Your task to perform on an android device: turn on showing notifications on the lock screen Image 0: 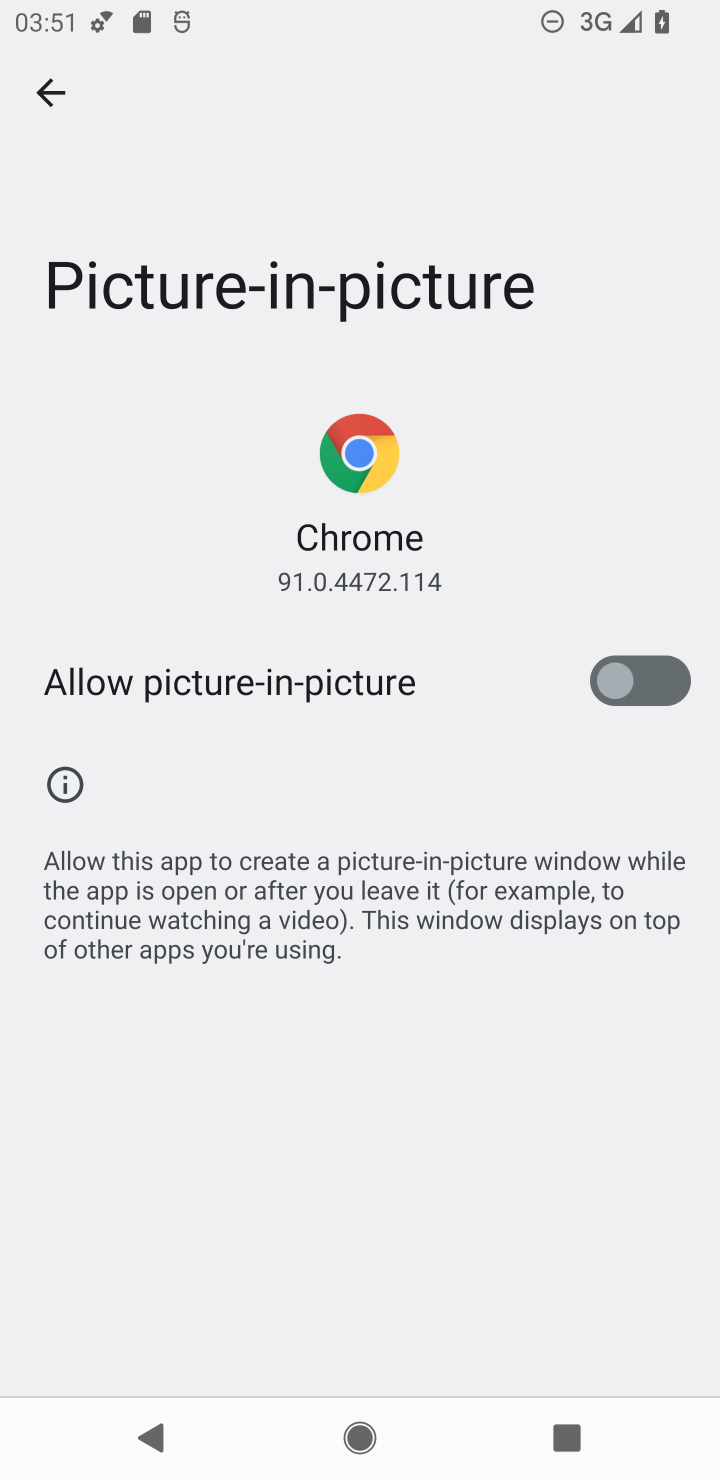
Step 0: press home button
Your task to perform on an android device: turn on showing notifications on the lock screen Image 1: 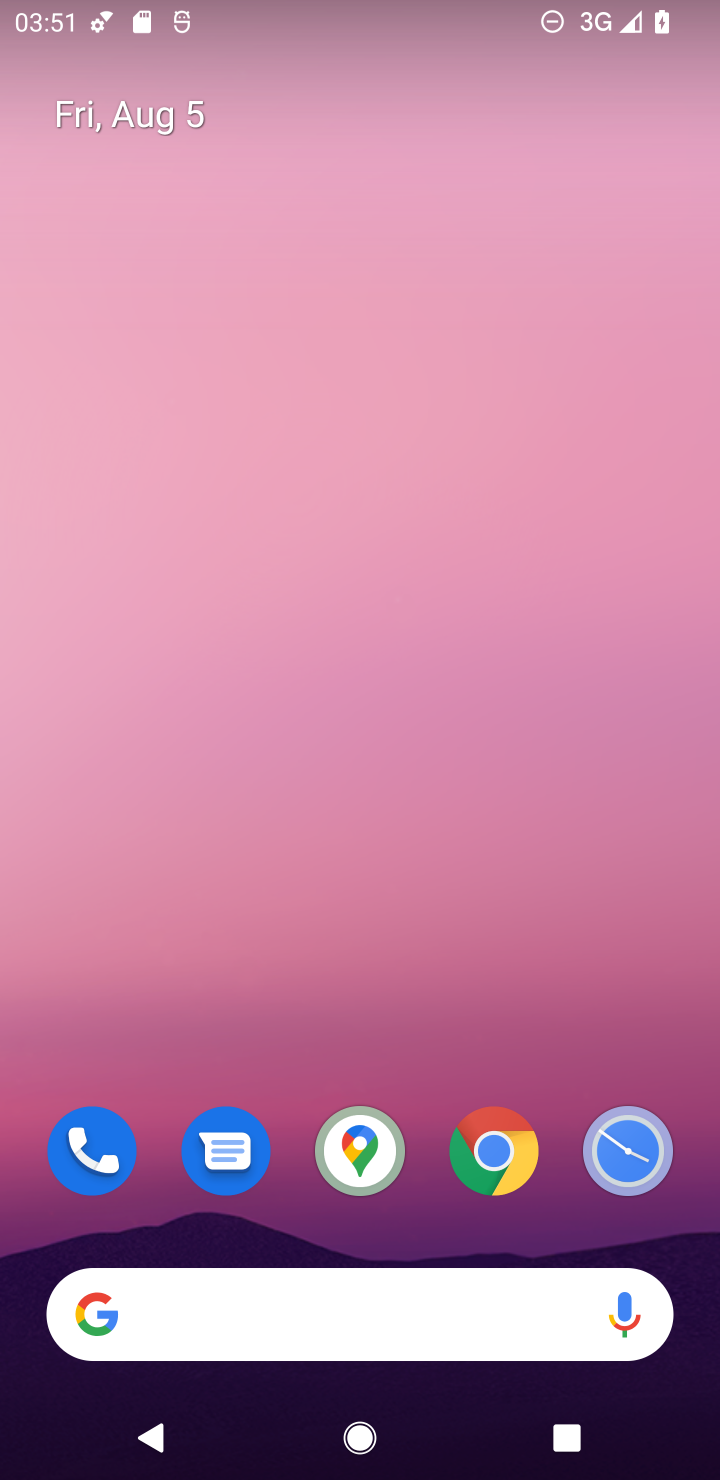
Step 1: drag from (295, 1001) to (295, 262)
Your task to perform on an android device: turn on showing notifications on the lock screen Image 2: 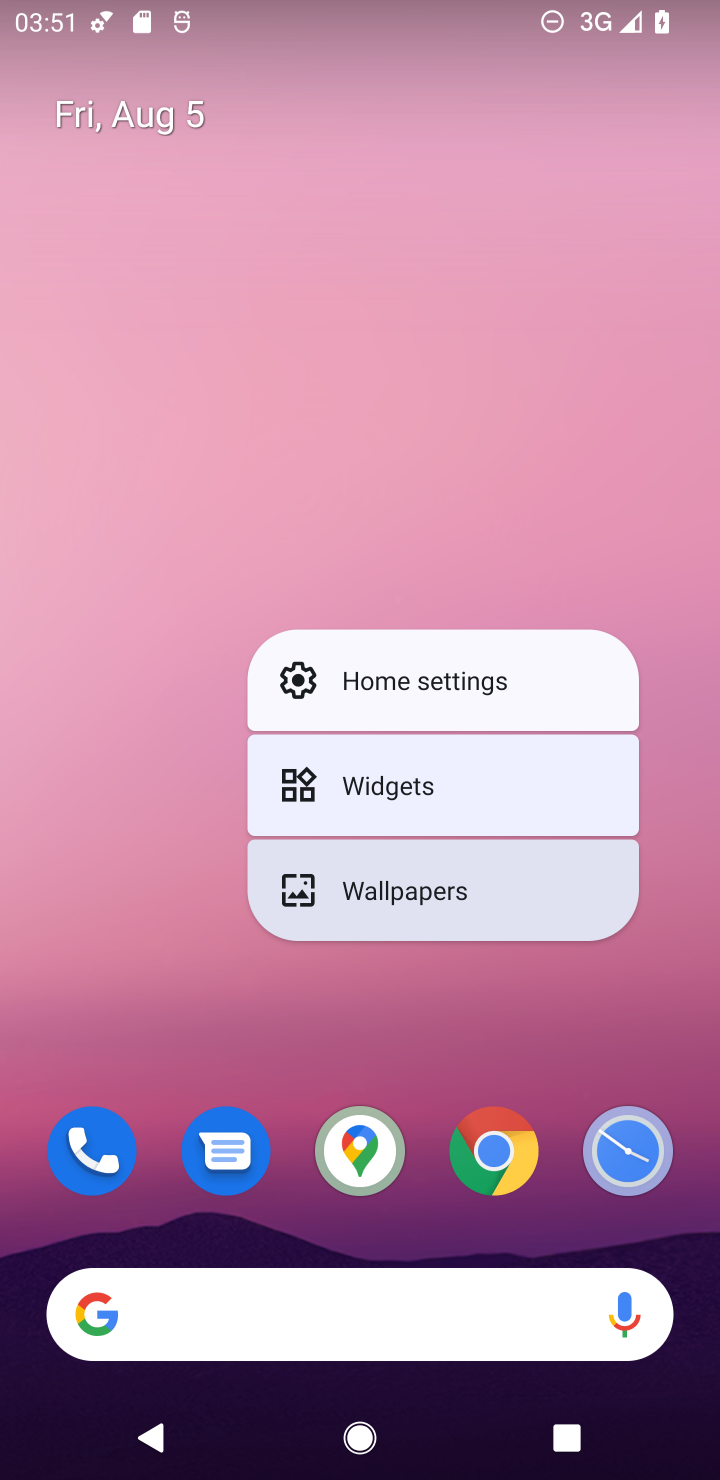
Step 2: click (295, 262)
Your task to perform on an android device: turn on showing notifications on the lock screen Image 3: 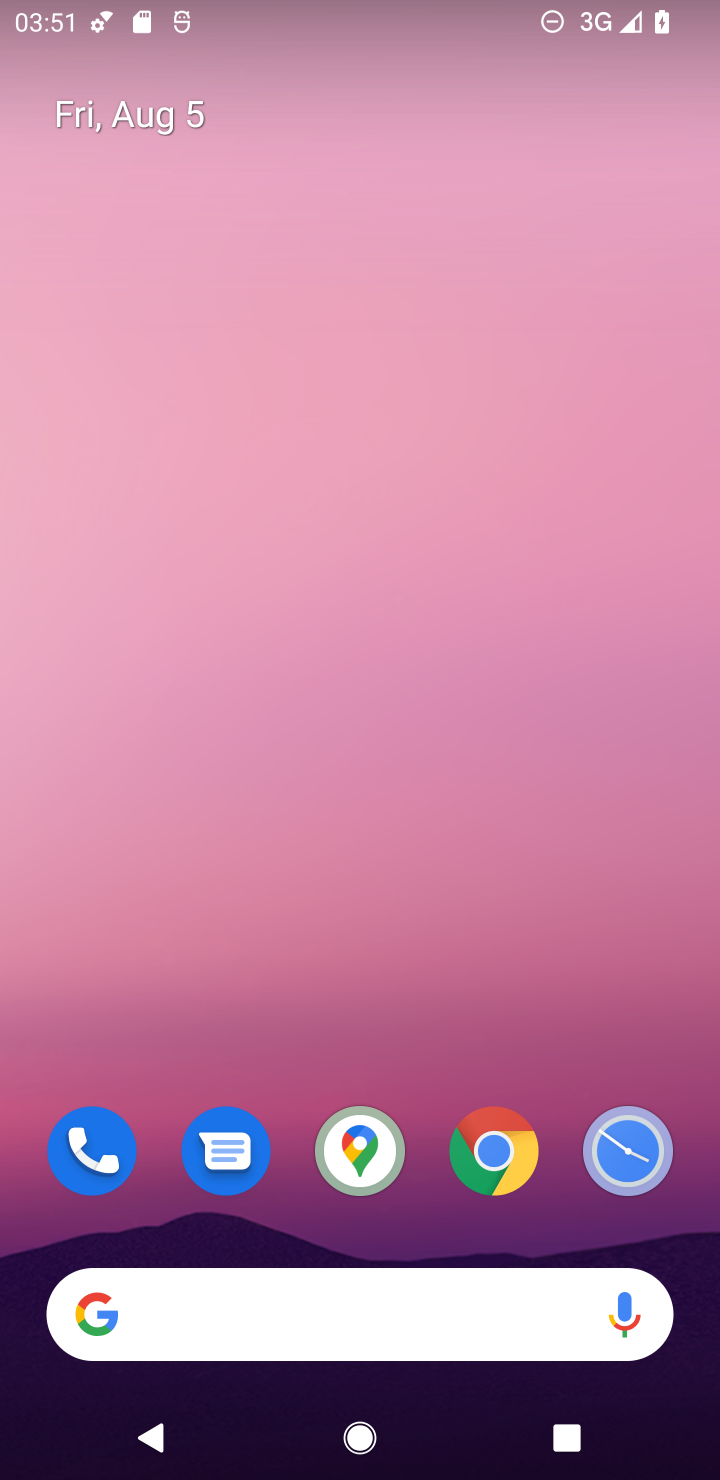
Step 3: drag from (379, 1027) to (395, 30)
Your task to perform on an android device: turn on showing notifications on the lock screen Image 4: 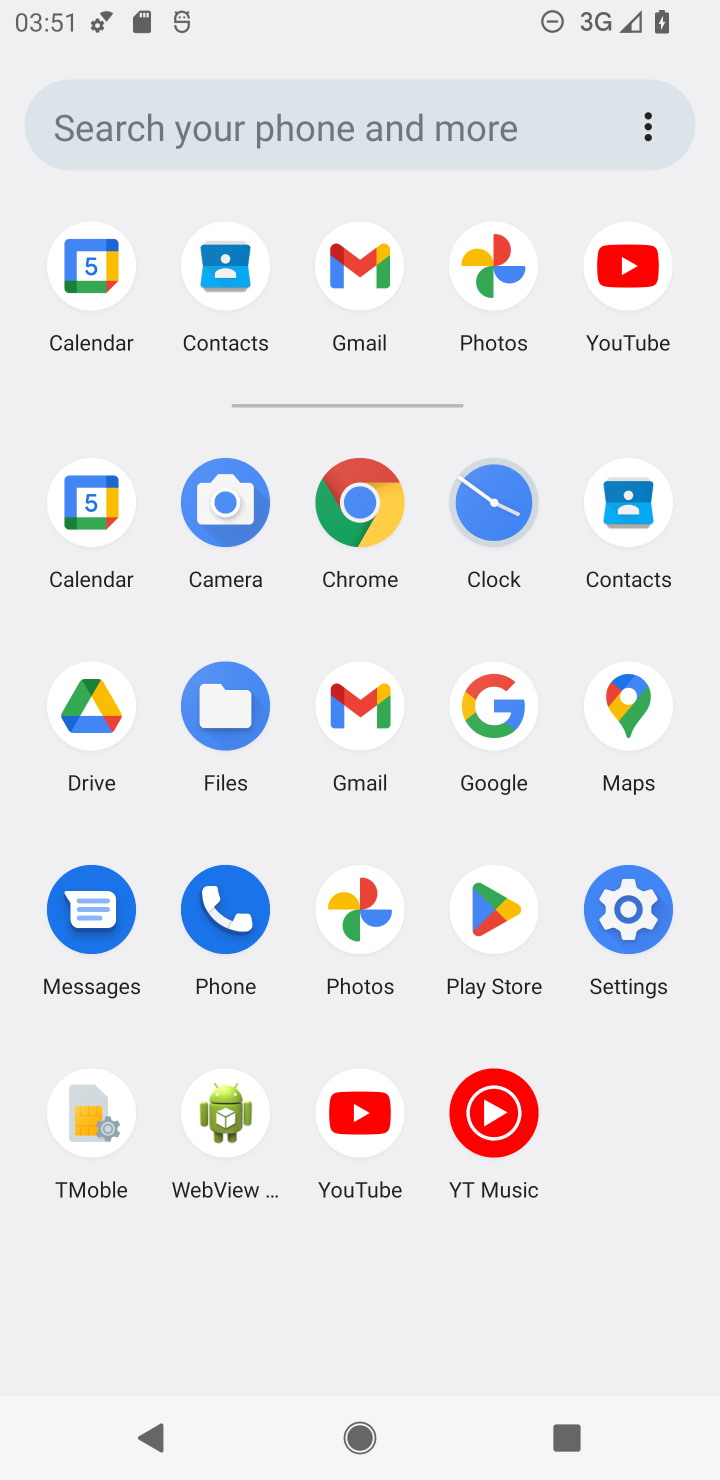
Step 4: click (632, 915)
Your task to perform on an android device: turn on showing notifications on the lock screen Image 5: 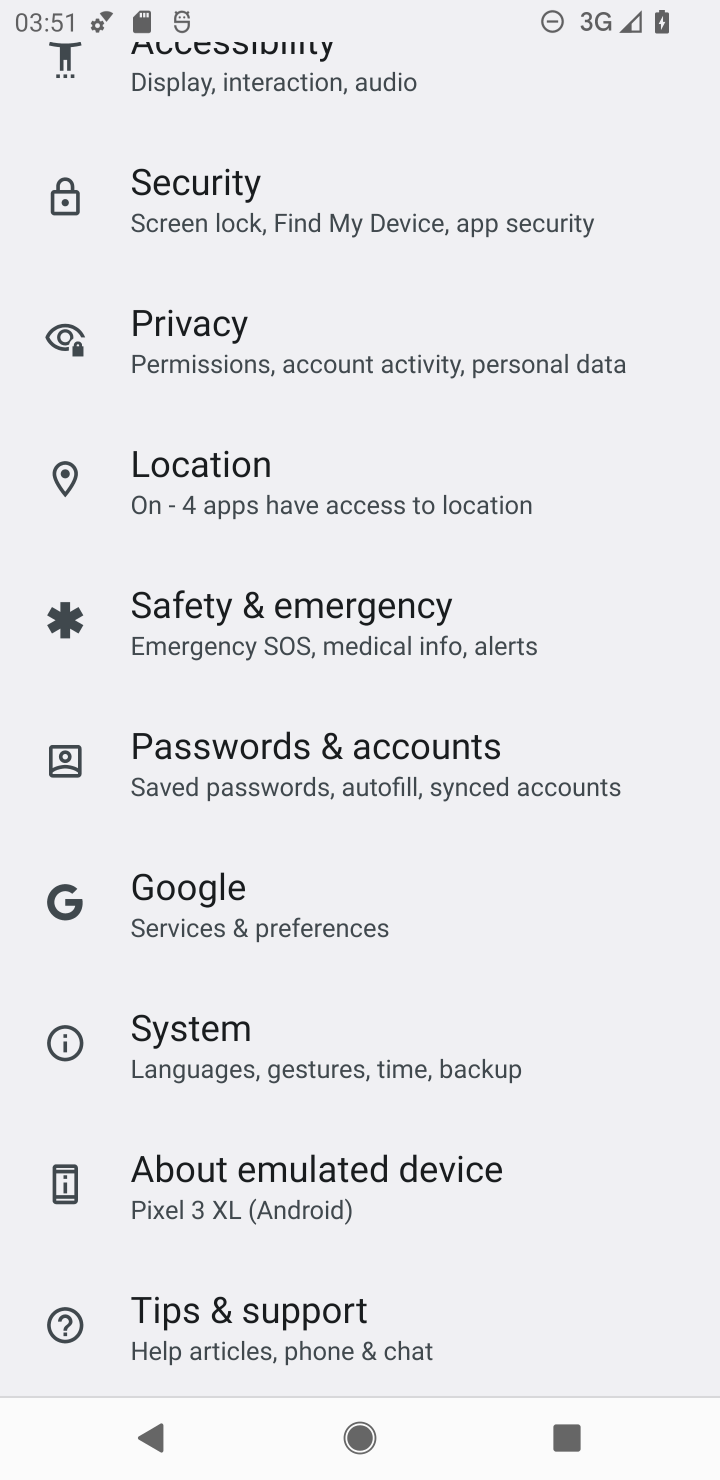
Step 5: drag from (553, 579) to (634, 1146)
Your task to perform on an android device: turn on showing notifications on the lock screen Image 6: 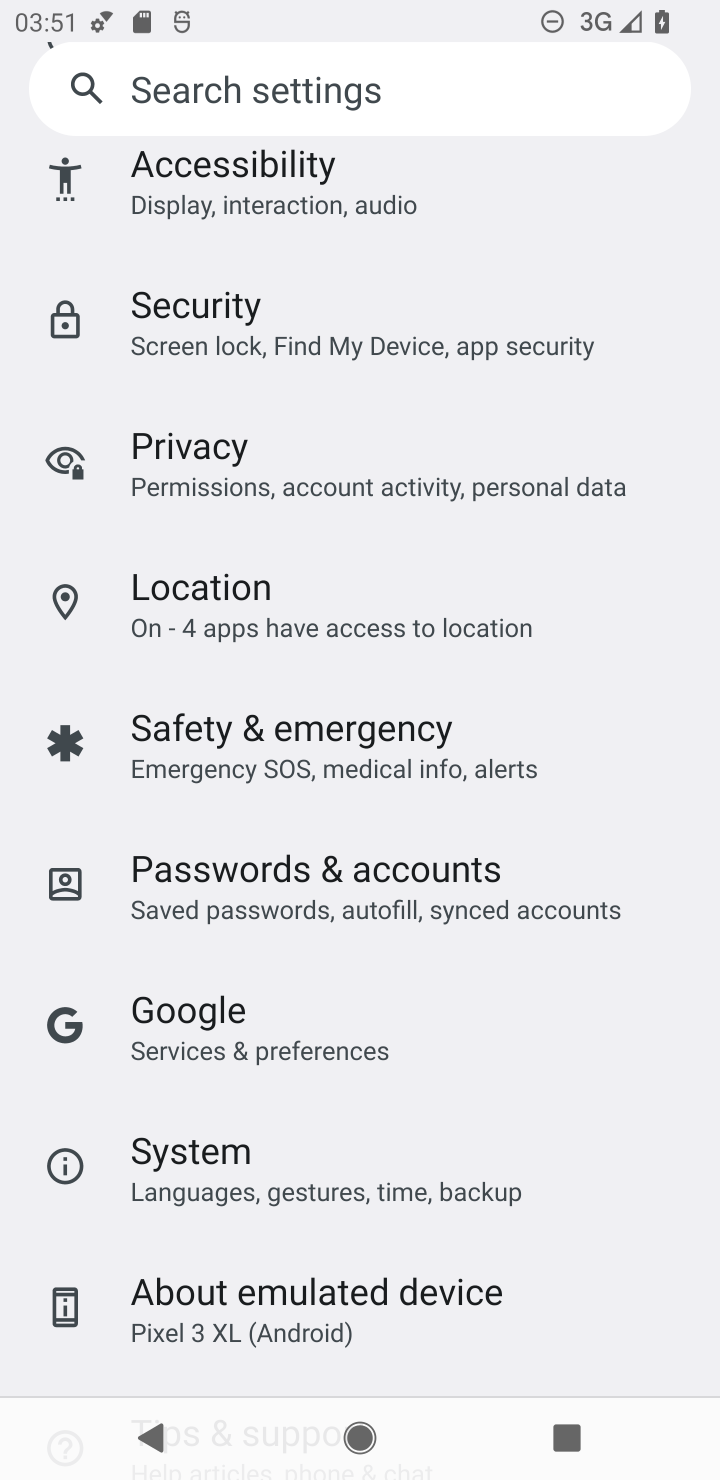
Step 6: drag from (505, 127) to (577, 1404)
Your task to perform on an android device: turn on showing notifications on the lock screen Image 7: 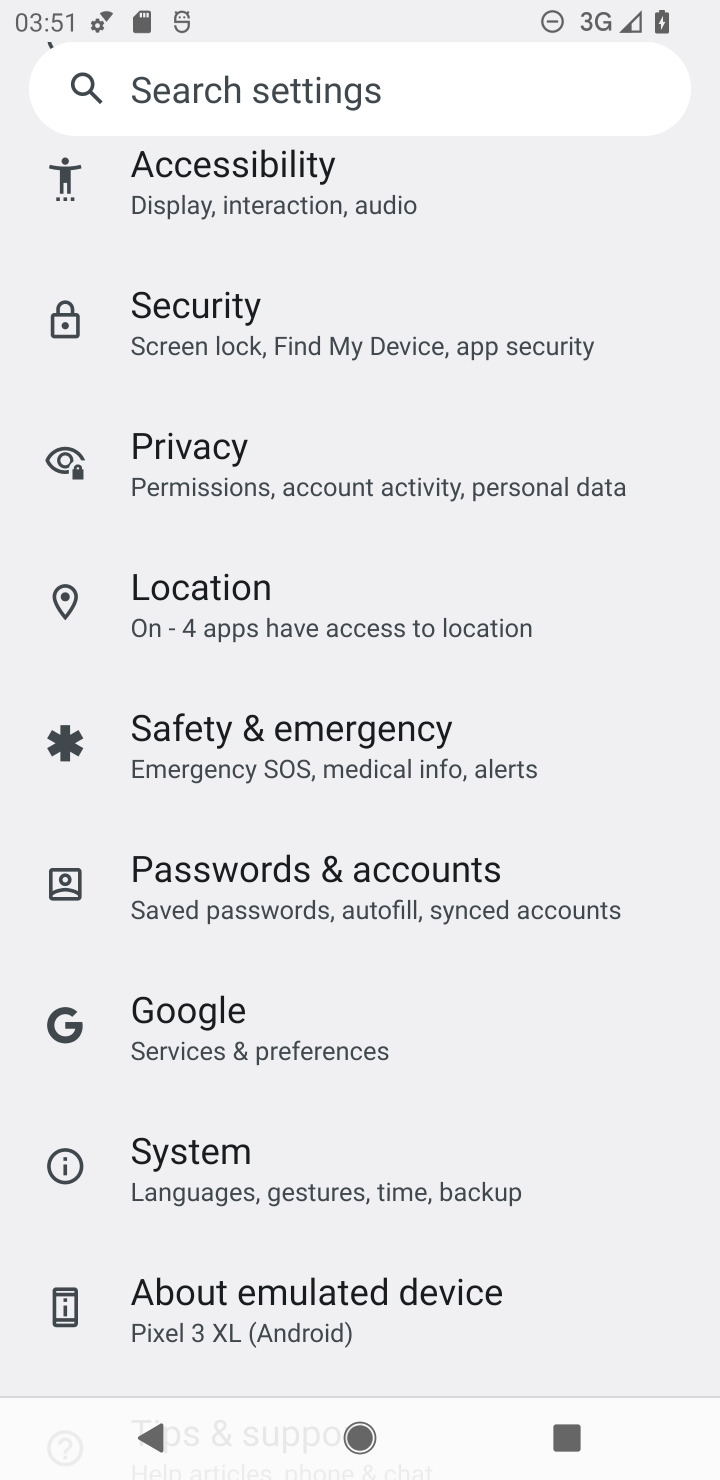
Step 7: drag from (441, 307) to (443, 1287)
Your task to perform on an android device: turn on showing notifications on the lock screen Image 8: 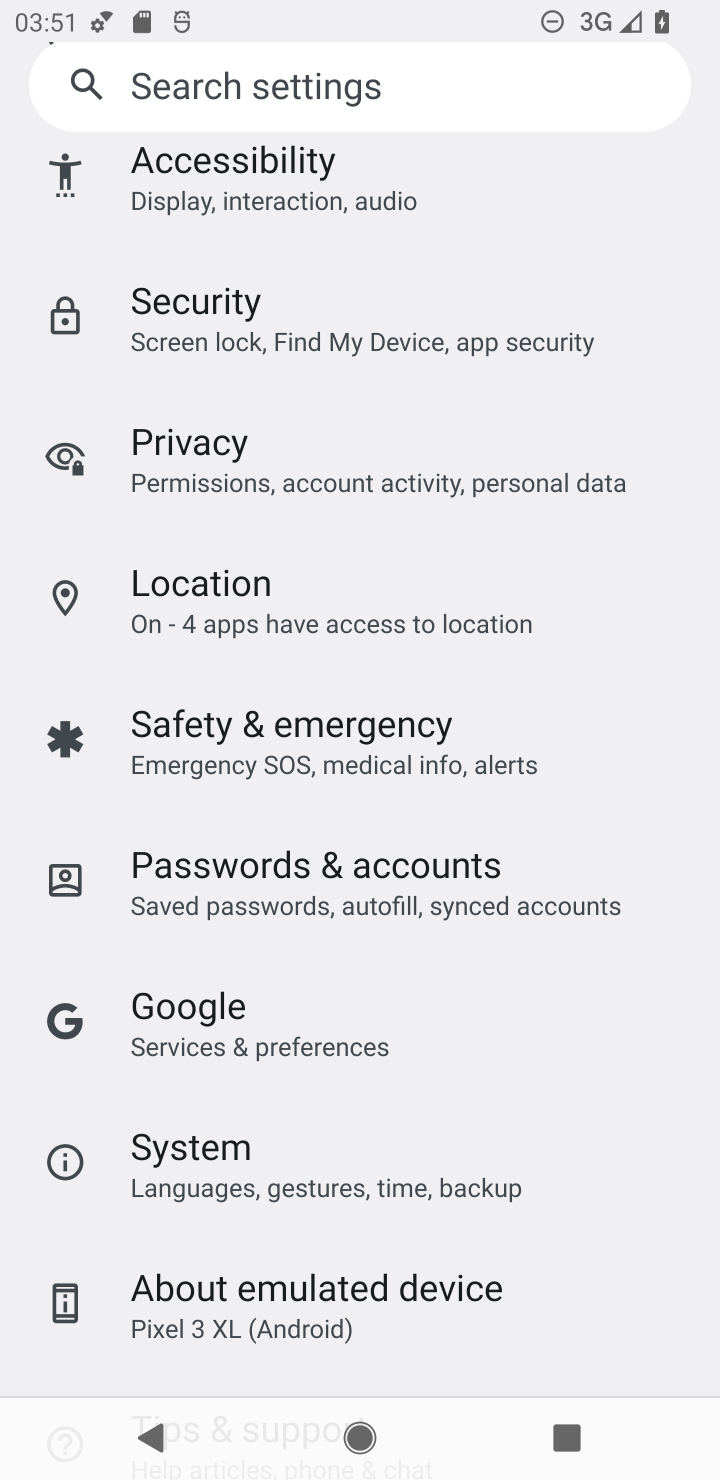
Step 8: drag from (589, 408) to (587, 1015)
Your task to perform on an android device: turn on showing notifications on the lock screen Image 9: 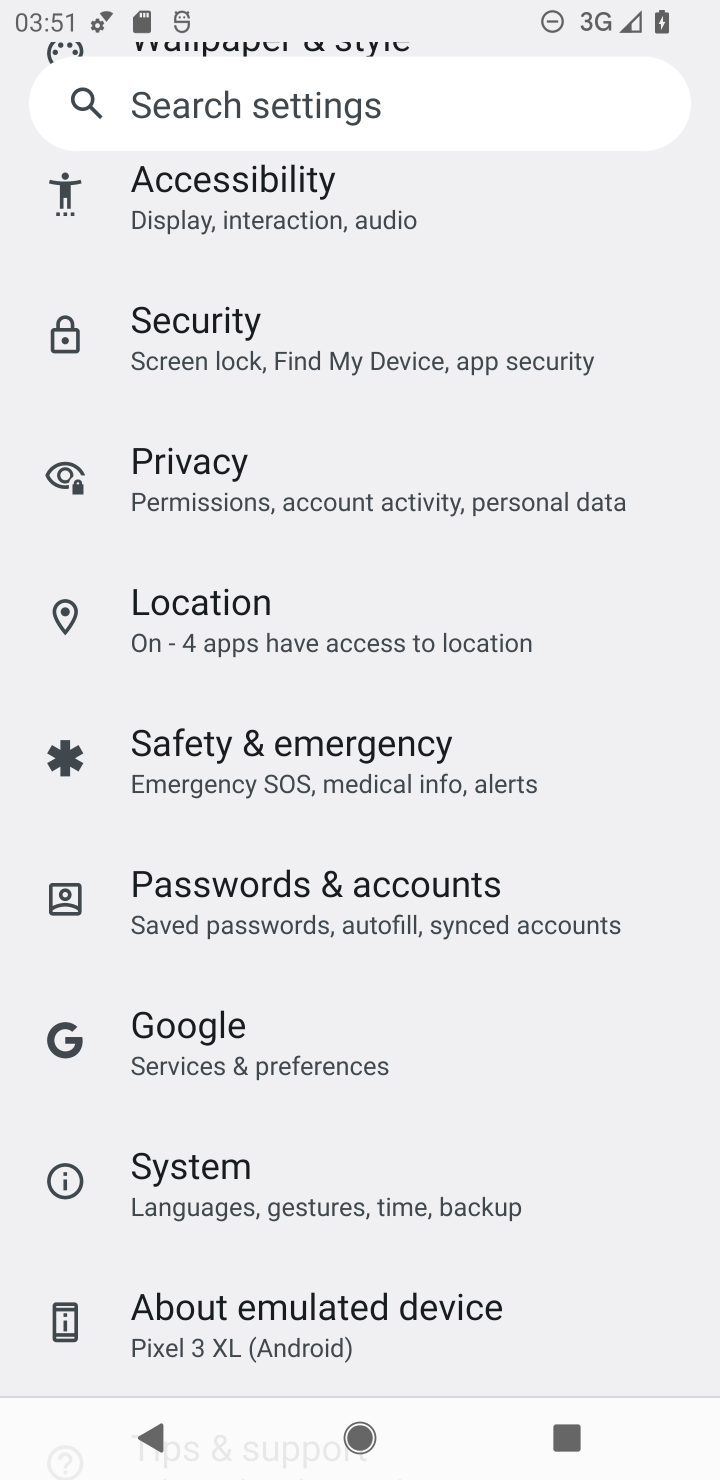
Step 9: drag from (452, 359) to (484, 1313)
Your task to perform on an android device: turn on showing notifications on the lock screen Image 10: 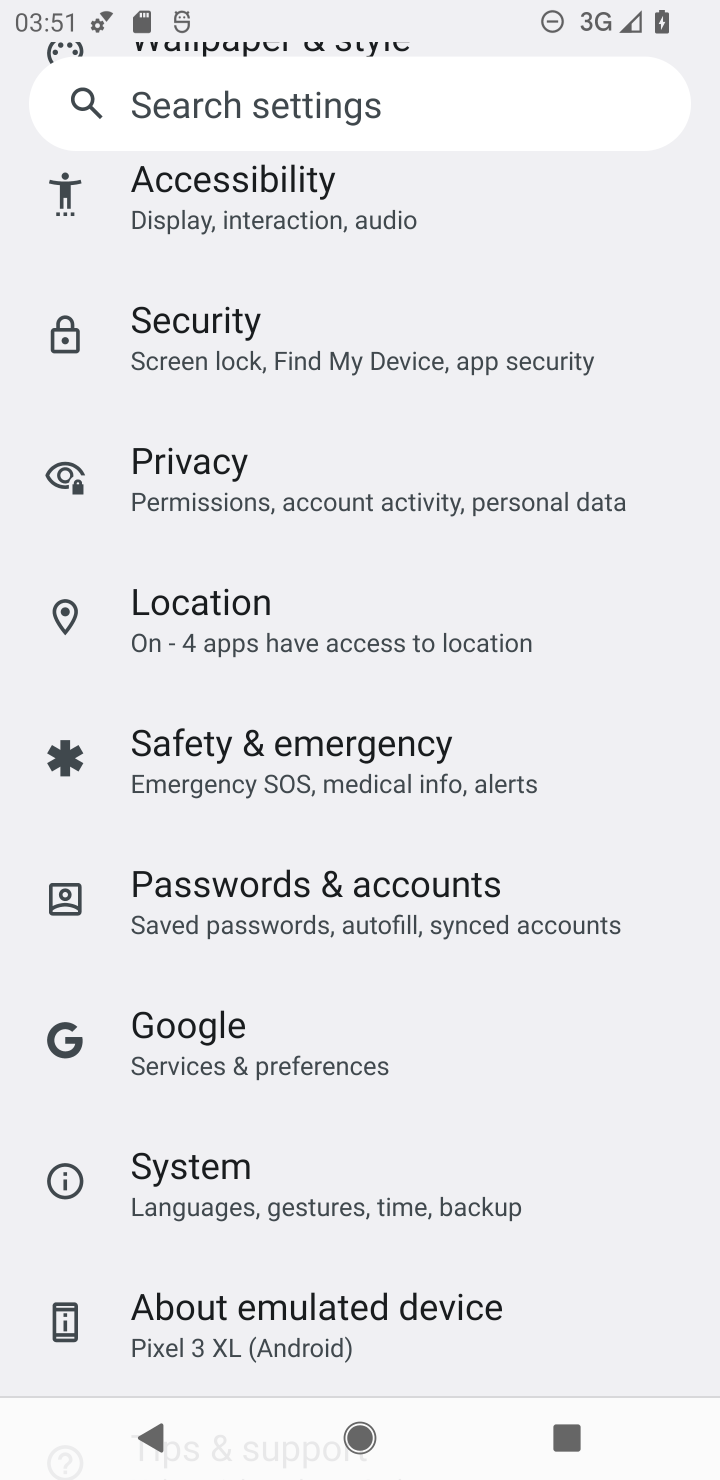
Step 10: drag from (455, 332) to (618, 1244)
Your task to perform on an android device: turn on showing notifications on the lock screen Image 11: 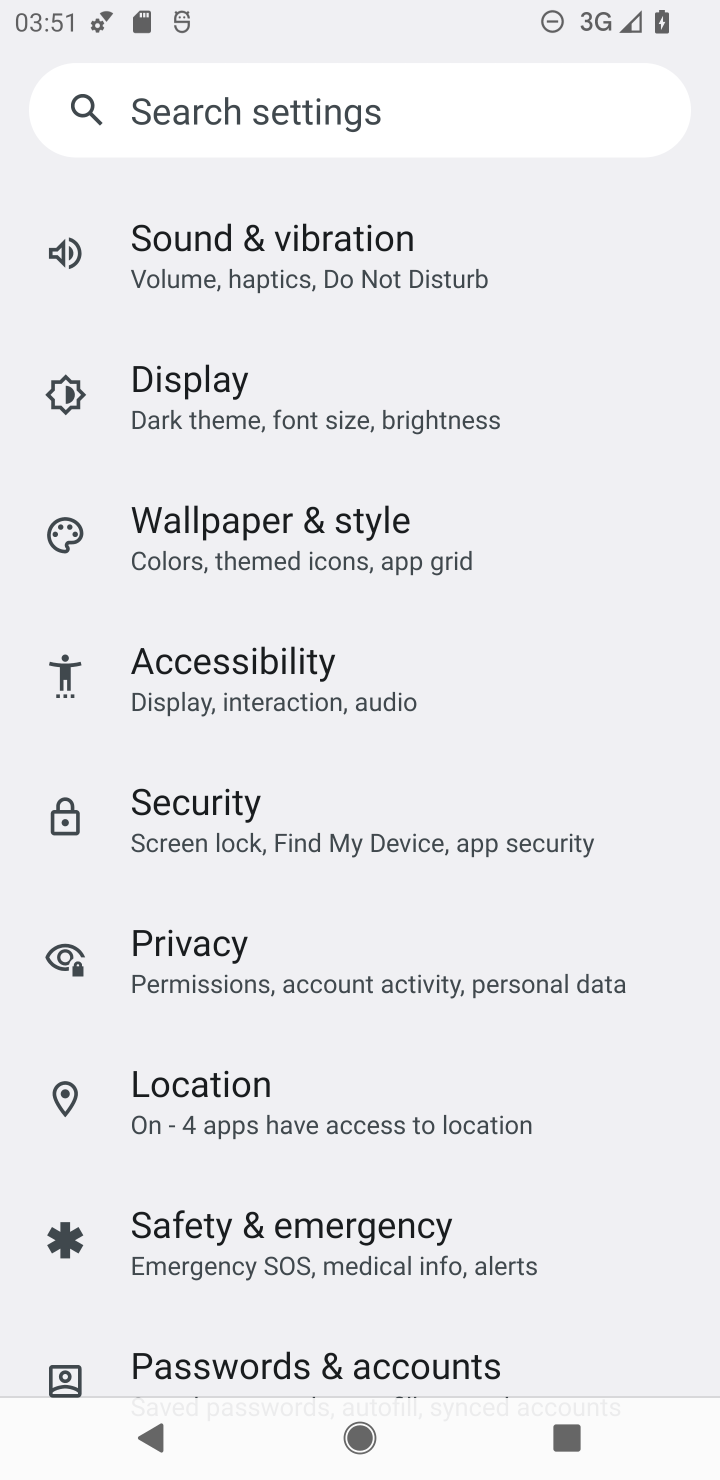
Step 11: drag from (595, 474) to (699, 1021)
Your task to perform on an android device: turn on showing notifications on the lock screen Image 12: 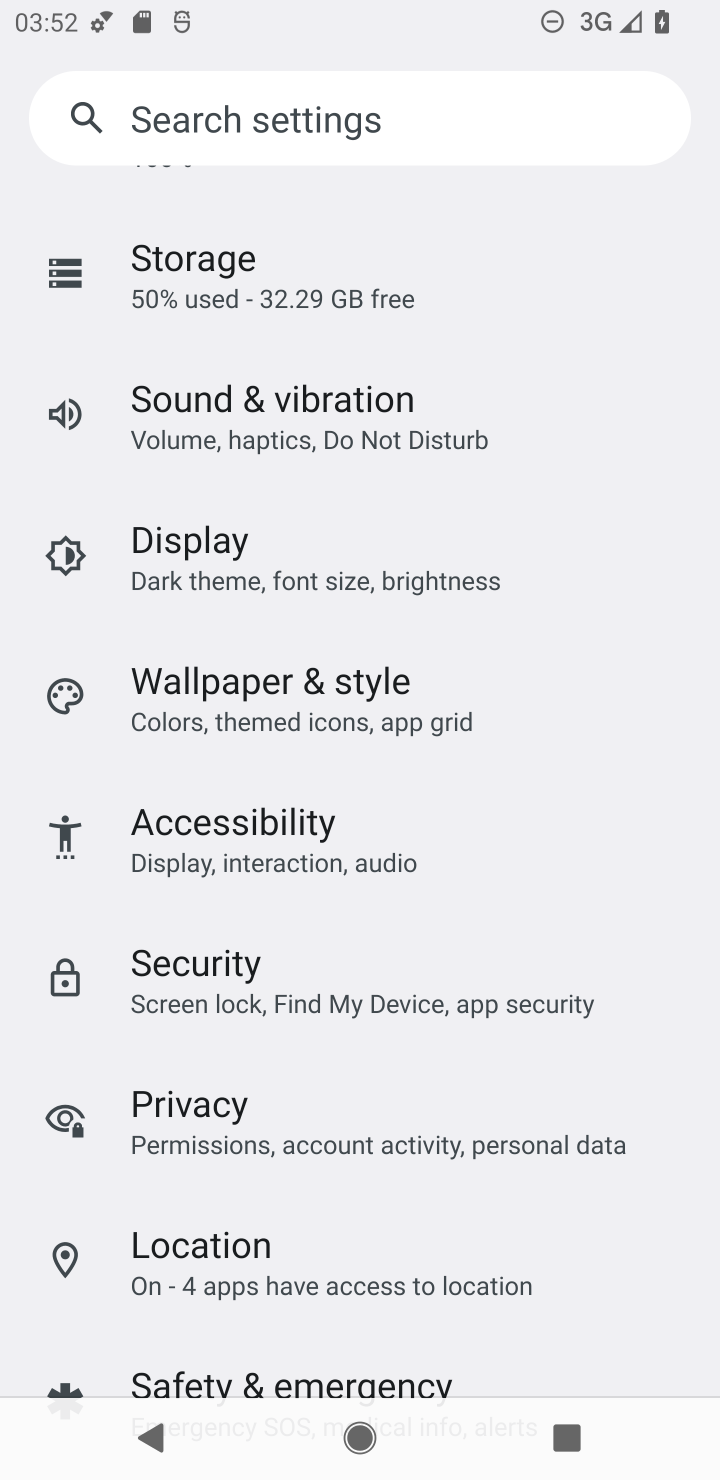
Step 12: drag from (404, 302) to (478, 1221)
Your task to perform on an android device: turn on showing notifications on the lock screen Image 13: 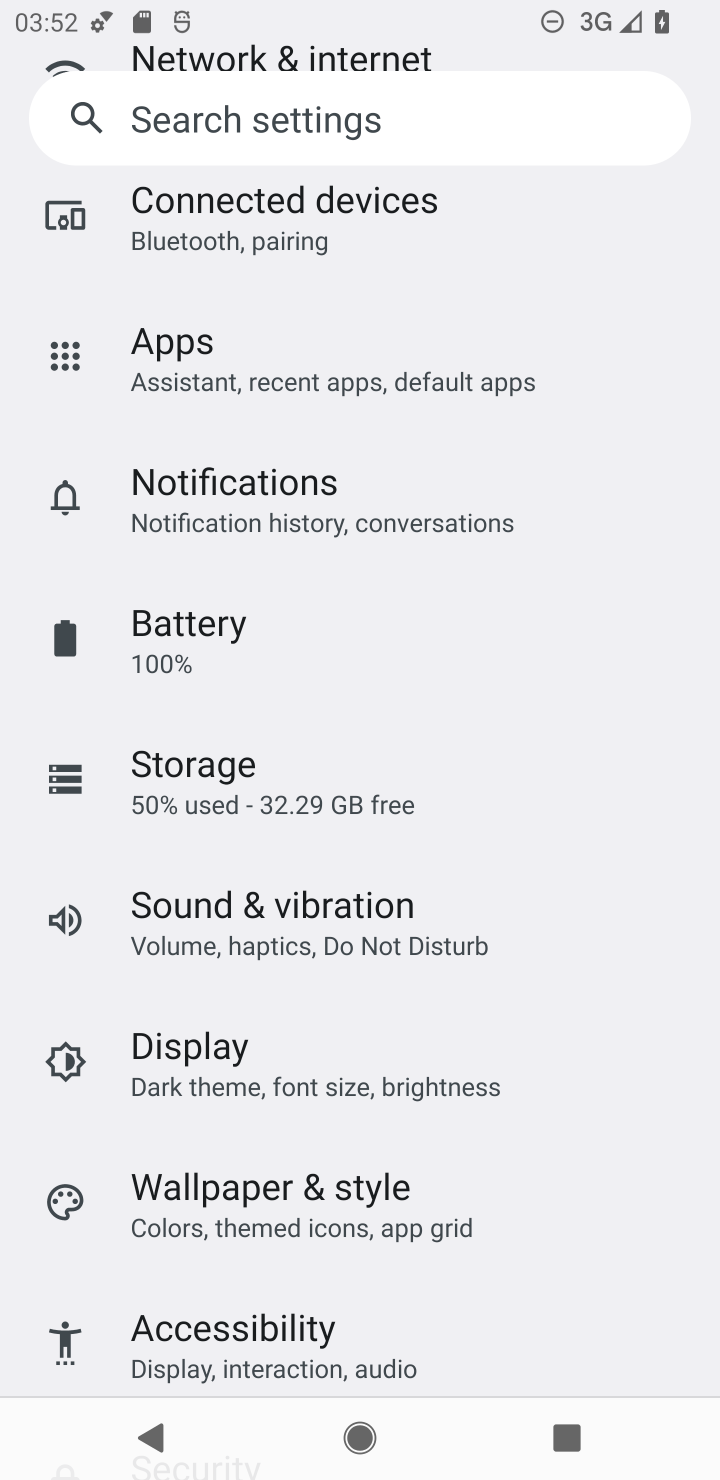
Step 13: click (403, 506)
Your task to perform on an android device: turn on showing notifications on the lock screen Image 14: 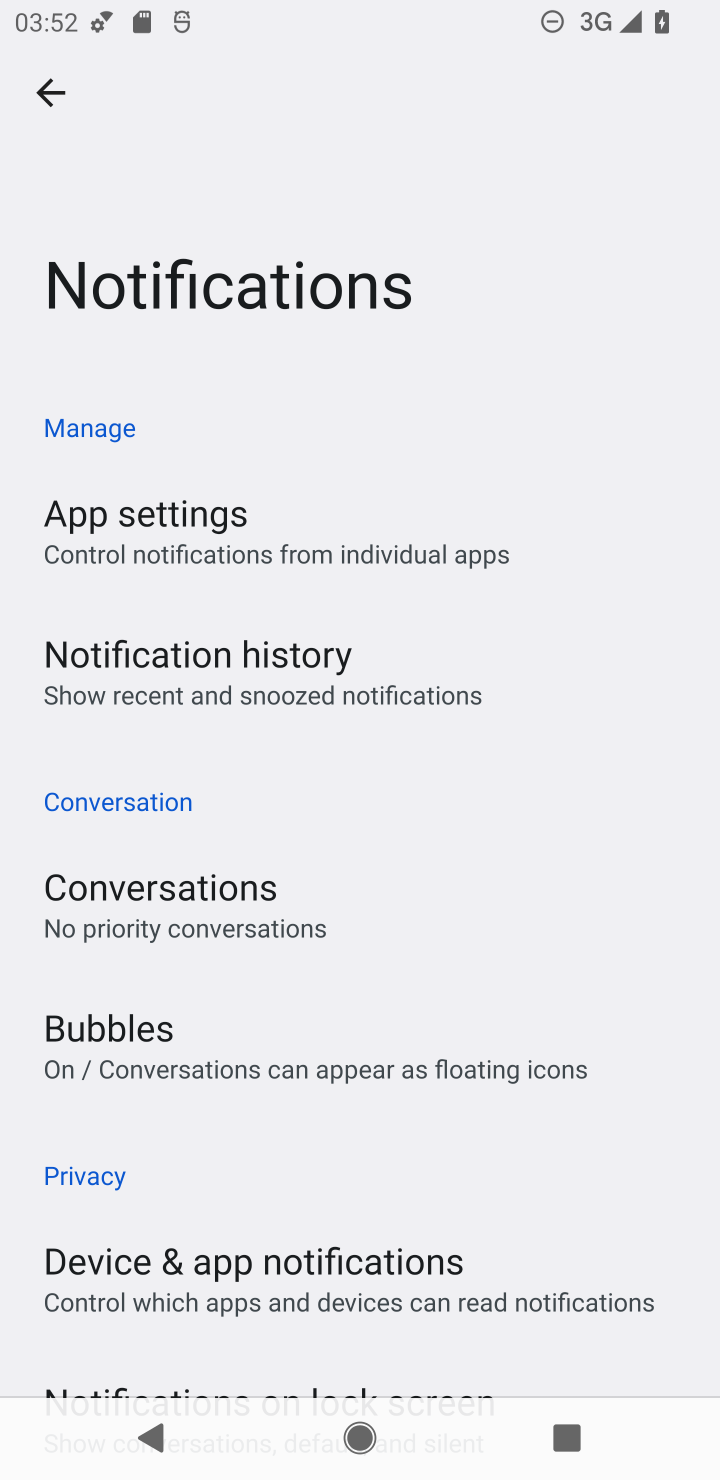
Step 14: drag from (279, 1216) to (250, 695)
Your task to perform on an android device: turn on showing notifications on the lock screen Image 15: 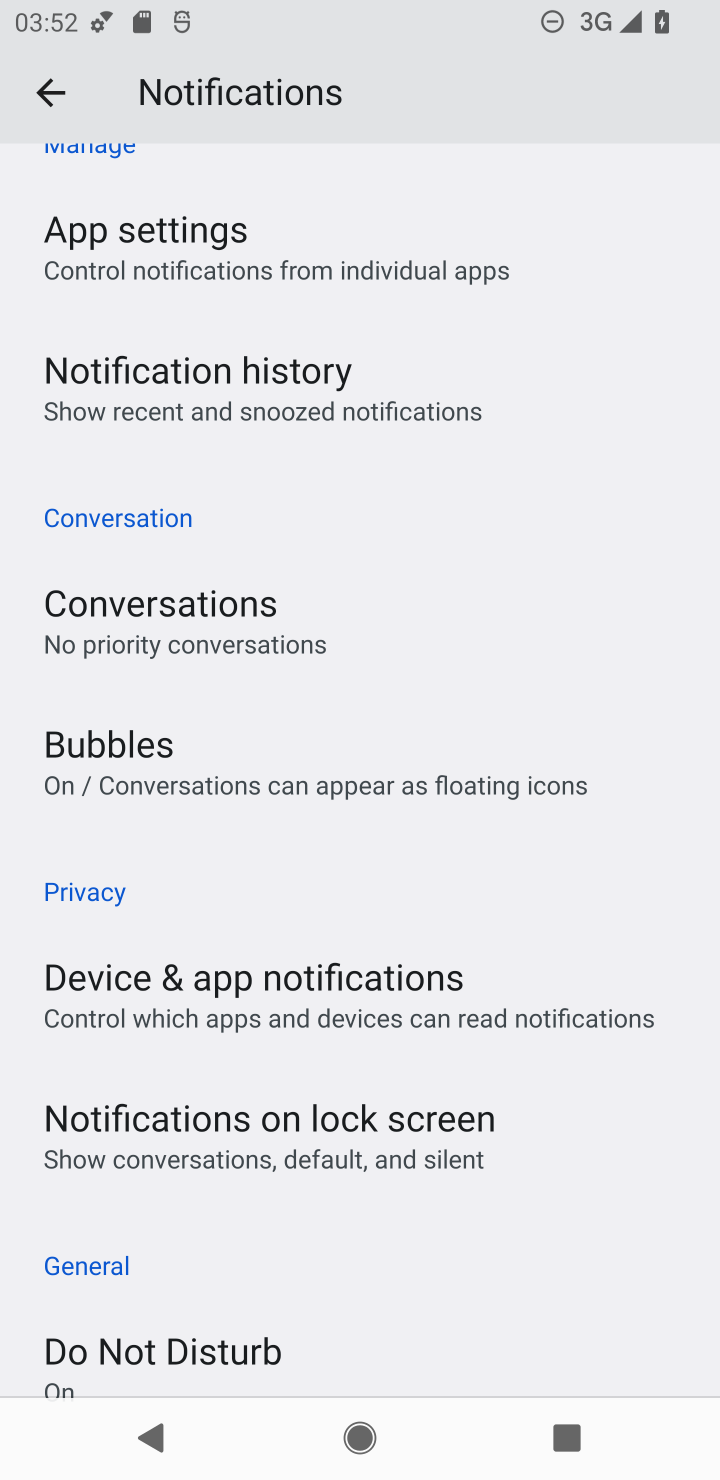
Step 15: click (317, 1139)
Your task to perform on an android device: turn on showing notifications on the lock screen Image 16: 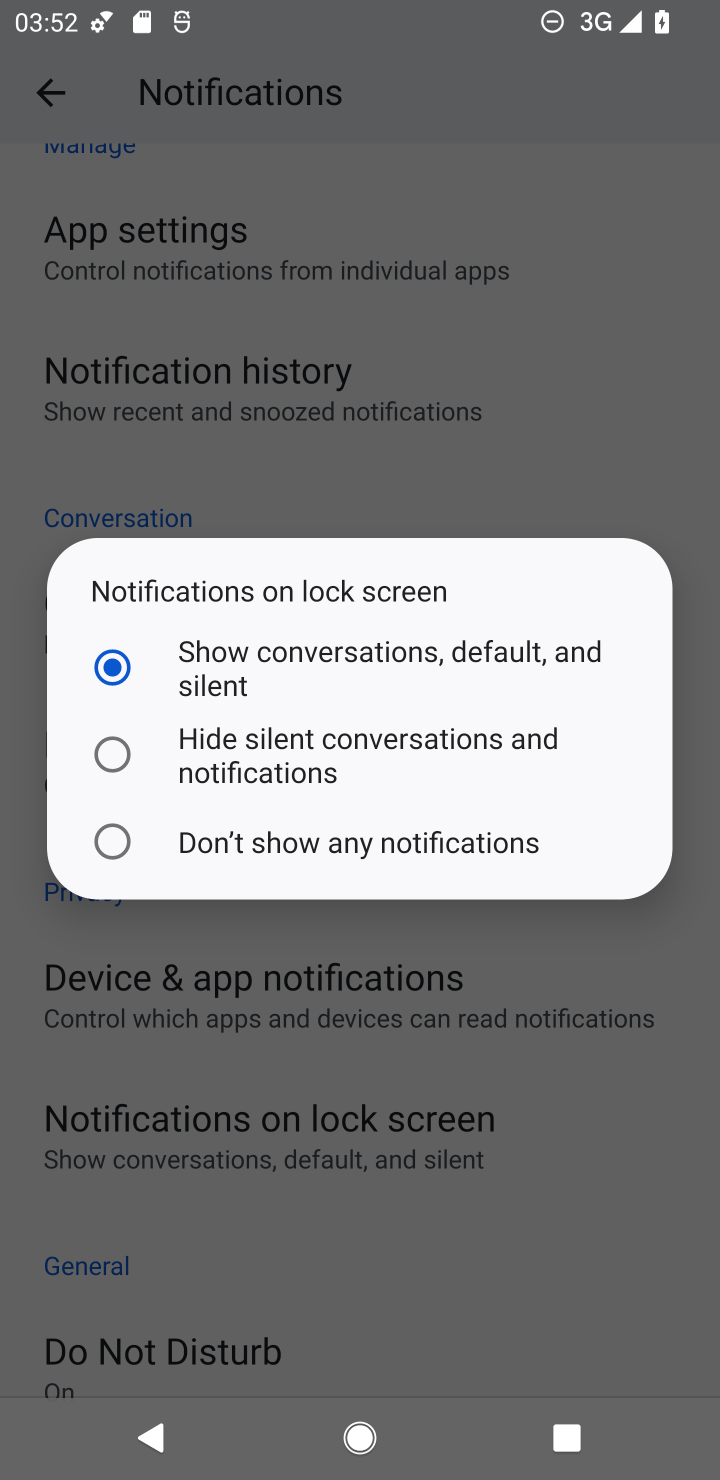
Step 16: click (488, 628)
Your task to perform on an android device: turn on showing notifications on the lock screen Image 17: 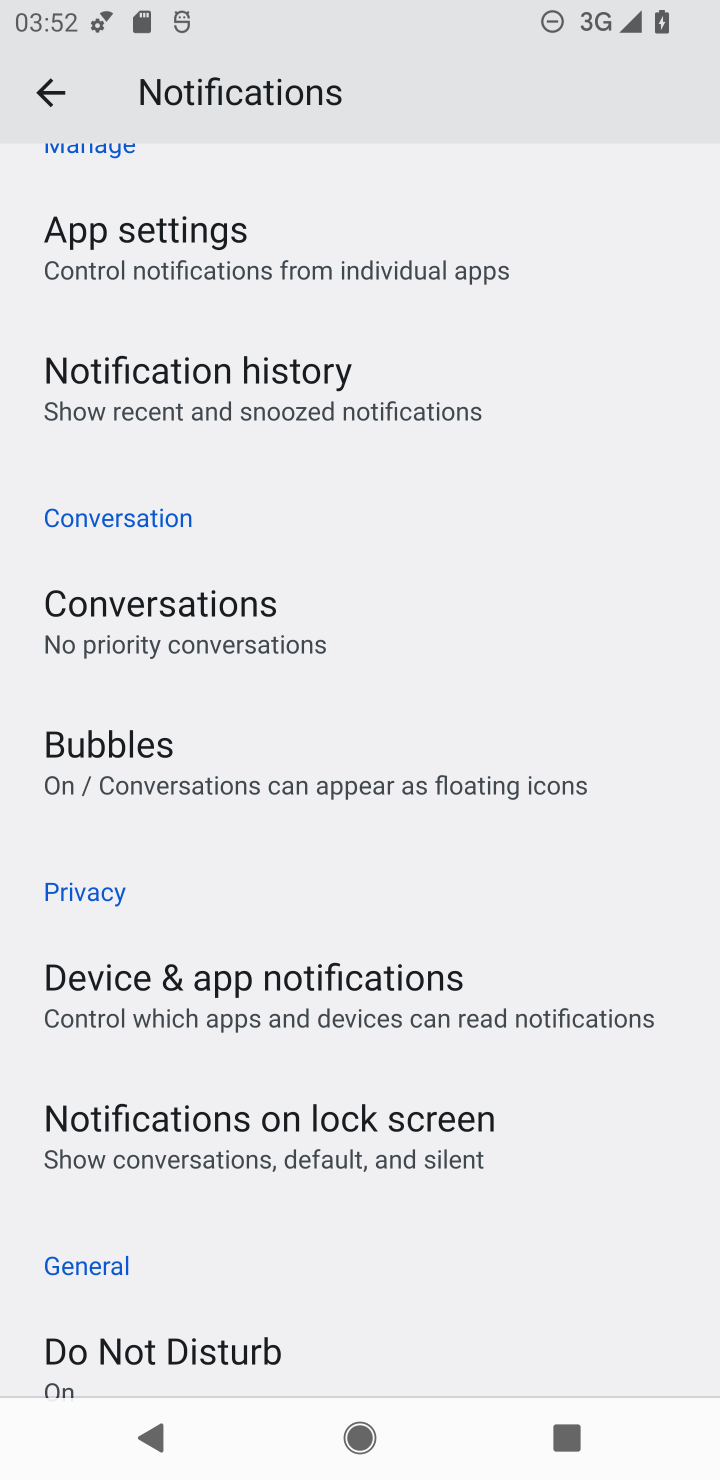
Step 17: task complete